Your task to perform on an android device: Go to Android settings Image 0: 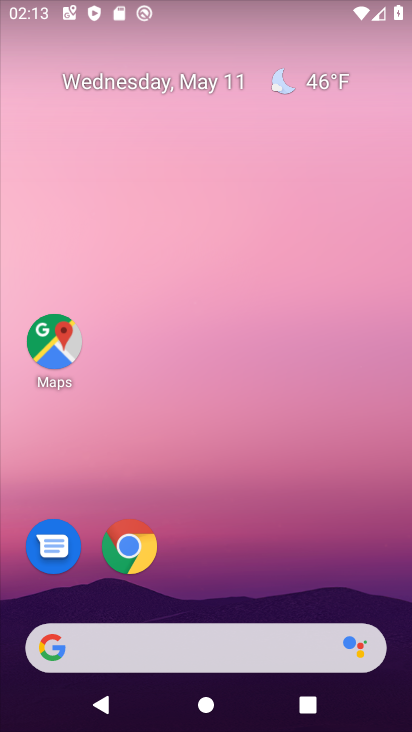
Step 0: drag from (184, 574) to (242, 160)
Your task to perform on an android device: Go to Android settings Image 1: 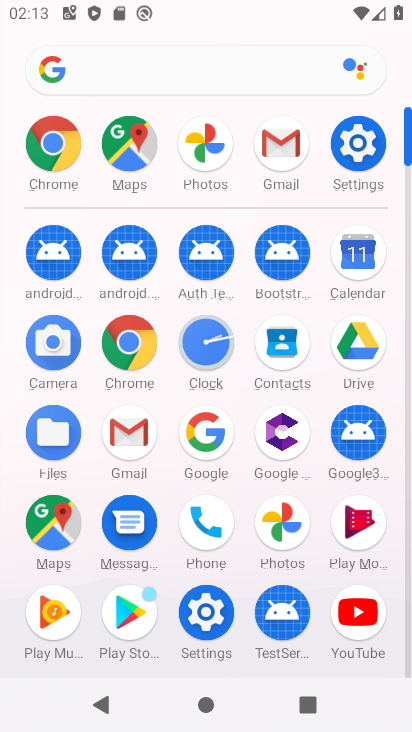
Step 1: drag from (250, 599) to (275, 365)
Your task to perform on an android device: Go to Android settings Image 2: 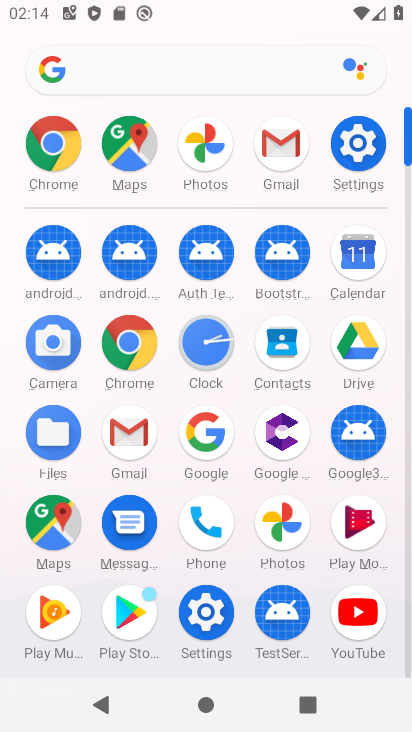
Step 2: click (210, 613)
Your task to perform on an android device: Go to Android settings Image 3: 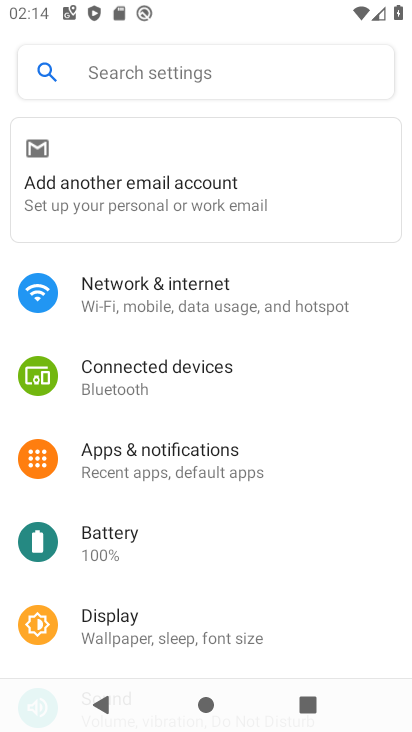
Step 3: drag from (131, 597) to (244, 218)
Your task to perform on an android device: Go to Android settings Image 4: 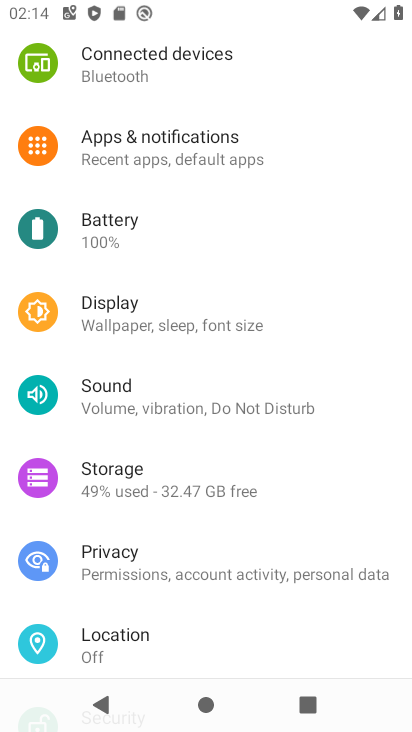
Step 4: drag from (191, 622) to (215, 203)
Your task to perform on an android device: Go to Android settings Image 5: 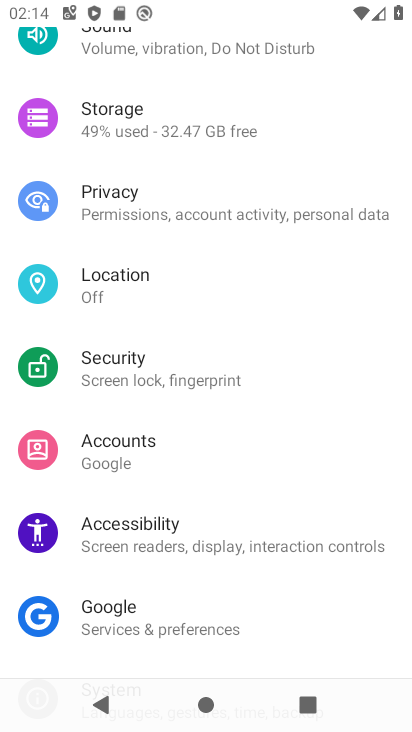
Step 5: drag from (156, 562) to (247, 153)
Your task to perform on an android device: Go to Android settings Image 6: 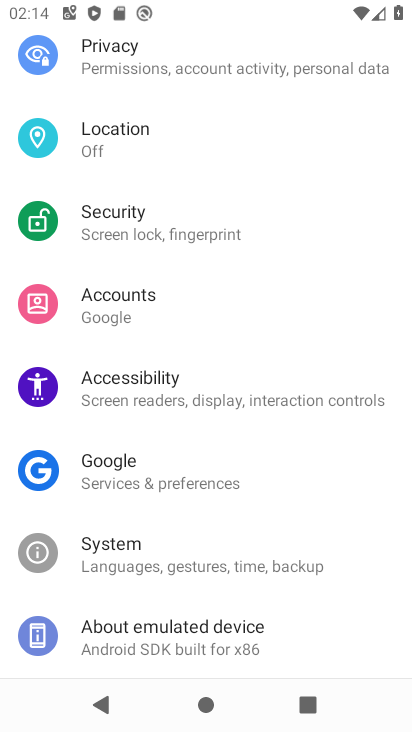
Step 6: drag from (190, 186) to (244, 728)
Your task to perform on an android device: Go to Android settings Image 7: 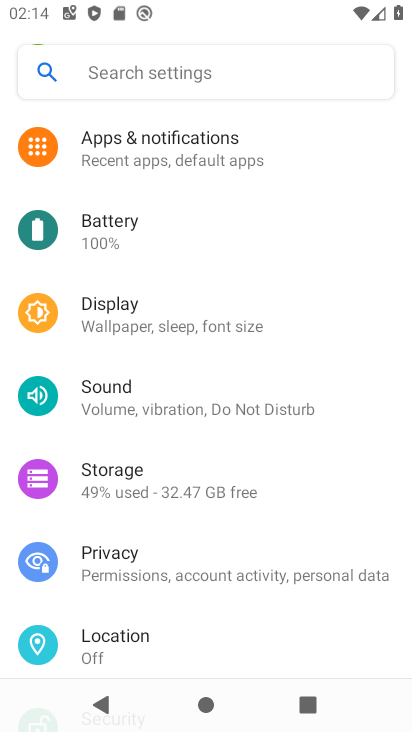
Step 7: drag from (215, 236) to (293, 700)
Your task to perform on an android device: Go to Android settings Image 8: 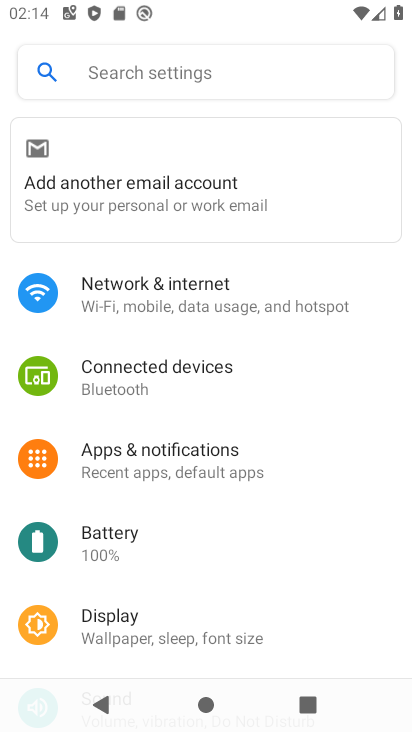
Step 8: drag from (249, 613) to (365, 0)
Your task to perform on an android device: Go to Android settings Image 9: 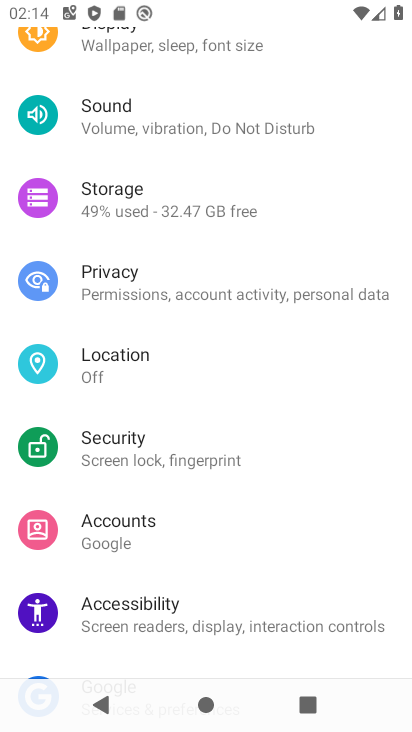
Step 9: drag from (202, 538) to (306, 107)
Your task to perform on an android device: Go to Android settings Image 10: 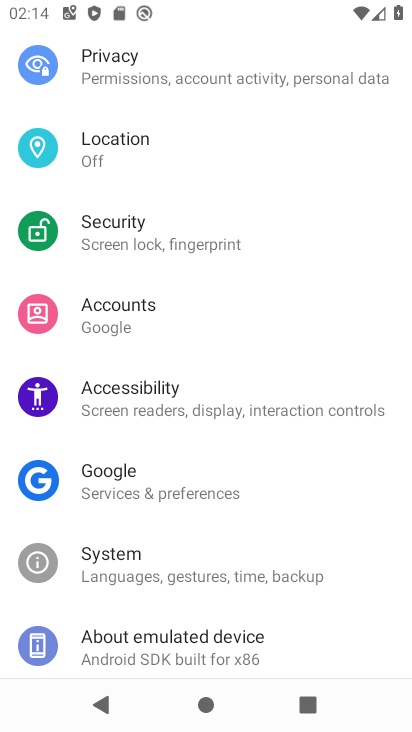
Step 10: drag from (169, 611) to (187, 412)
Your task to perform on an android device: Go to Android settings Image 11: 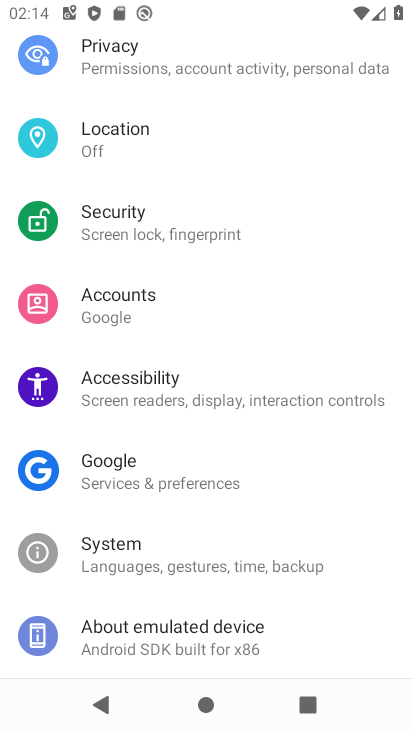
Step 11: click (165, 627)
Your task to perform on an android device: Go to Android settings Image 12: 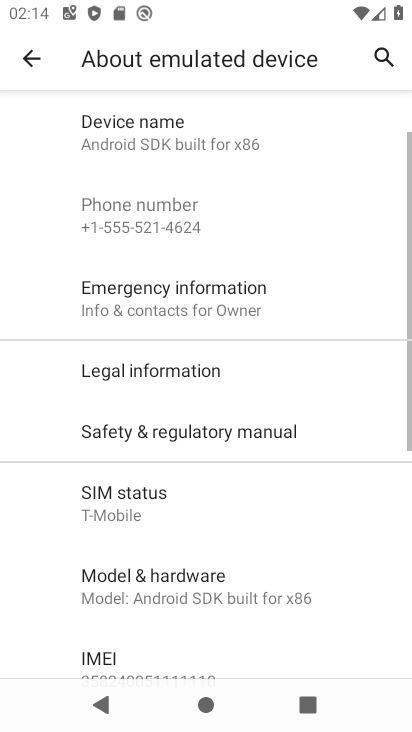
Step 12: drag from (231, 599) to (314, 199)
Your task to perform on an android device: Go to Android settings Image 13: 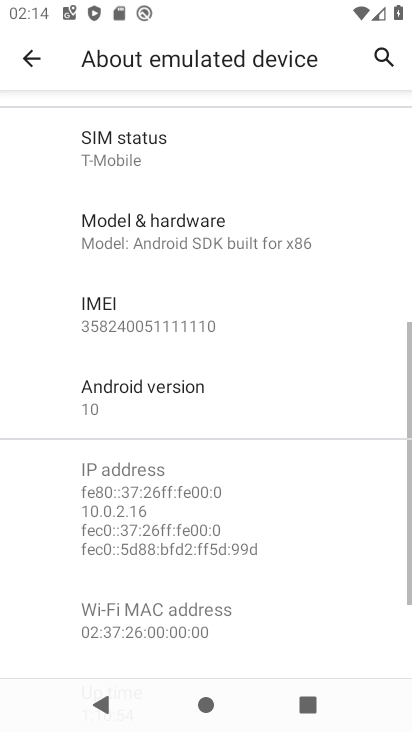
Step 13: click (183, 420)
Your task to perform on an android device: Go to Android settings Image 14: 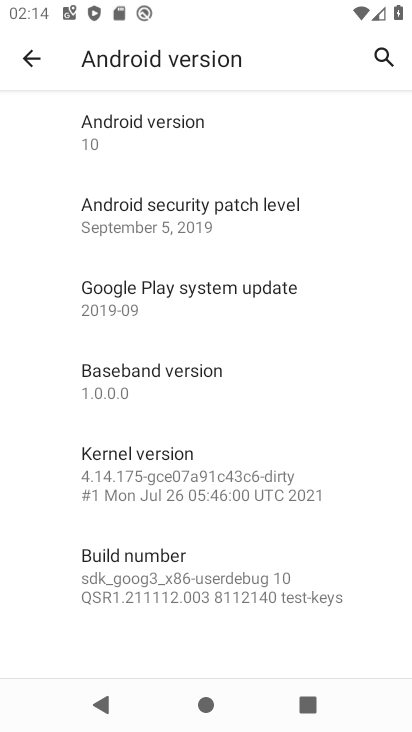
Step 14: task complete